Your task to perform on an android device: change keyboard looks Image 0: 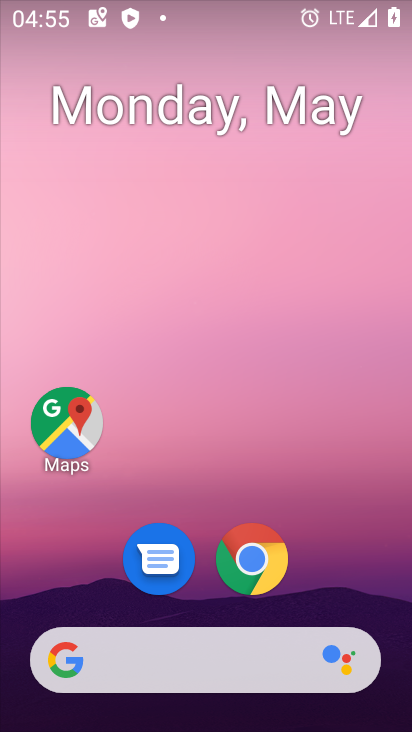
Step 0: drag from (333, 649) to (372, 41)
Your task to perform on an android device: change keyboard looks Image 1: 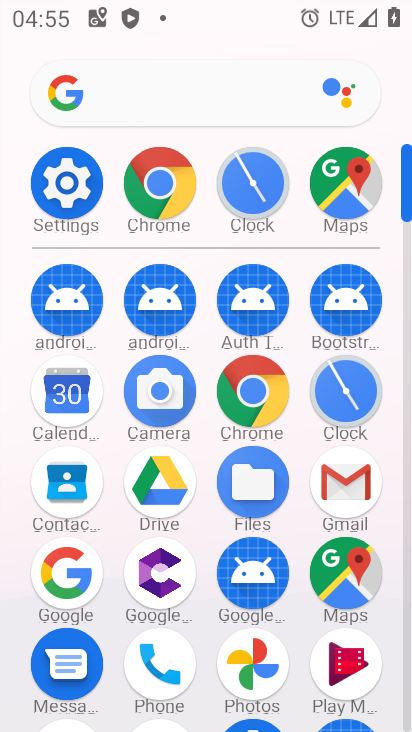
Step 1: click (75, 190)
Your task to perform on an android device: change keyboard looks Image 2: 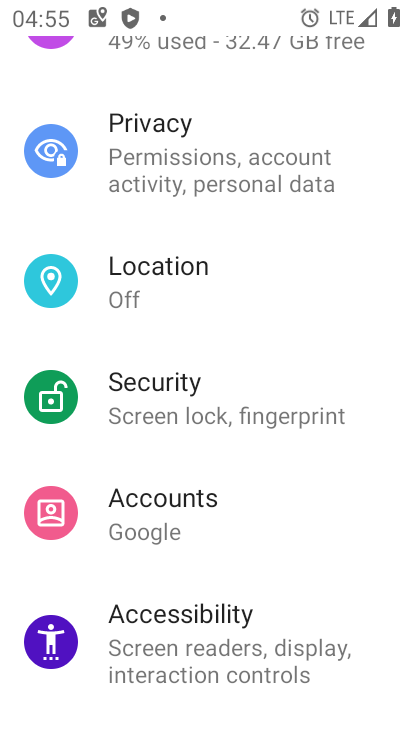
Step 2: drag from (359, 644) to (349, 57)
Your task to perform on an android device: change keyboard looks Image 3: 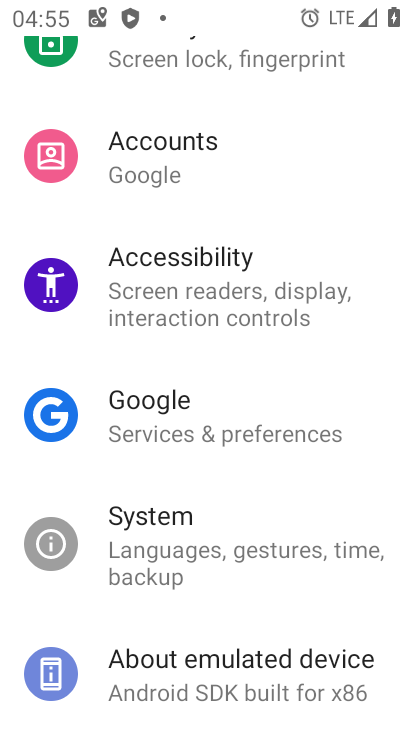
Step 3: click (229, 557)
Your task to perform on an android device: change keyboard looks Image 4: 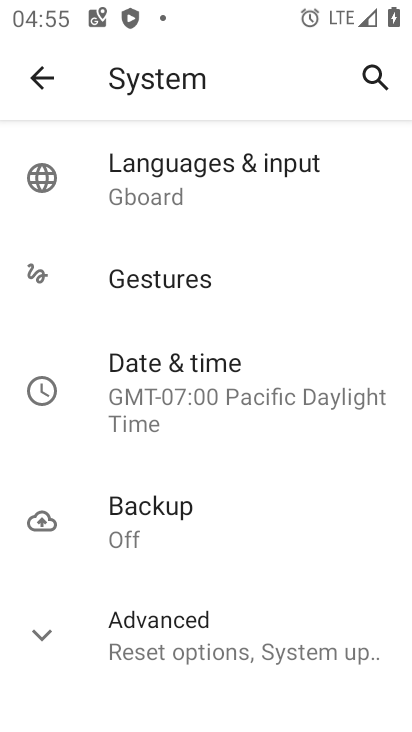
Step 4: click (252, 190)
Your task to perform on an android device: change keyboard looks Image 5: 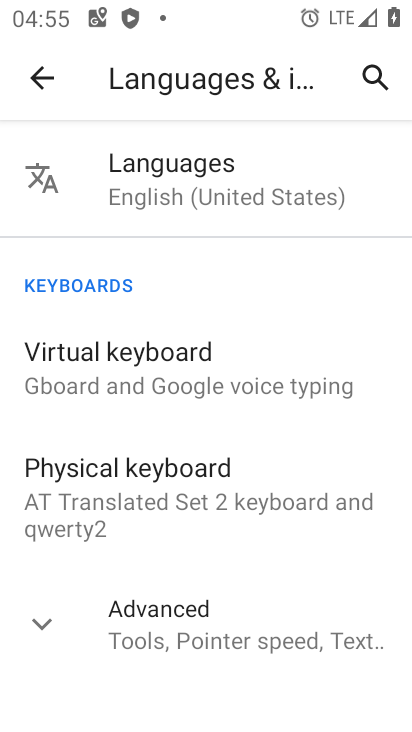
Step 5: click (173, 388)
Your task to perform on an android device: change keyboard looks Image 6: 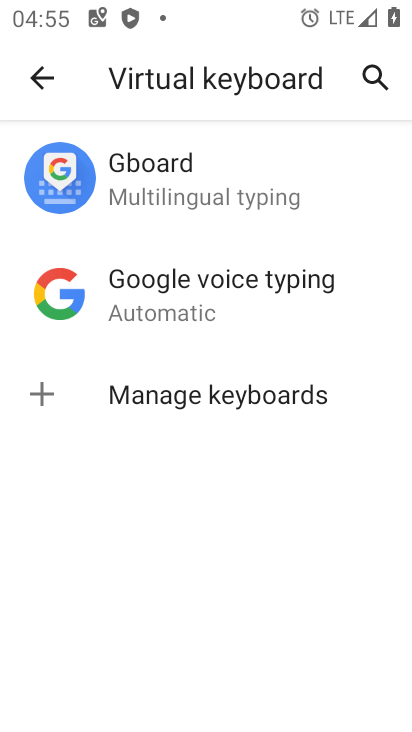
Step 6: click (154, 179)
Your task to perform on an android device: change keyboard looks Image 7: 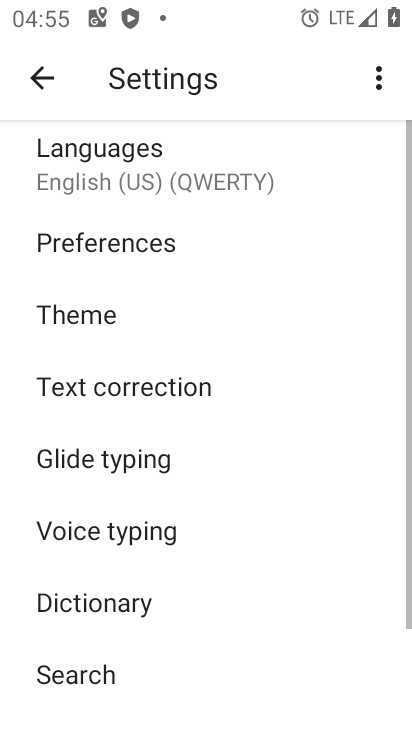
Step 7: click (150, 314)
Your task to perform on an android device: change keyboard looks Image 8: 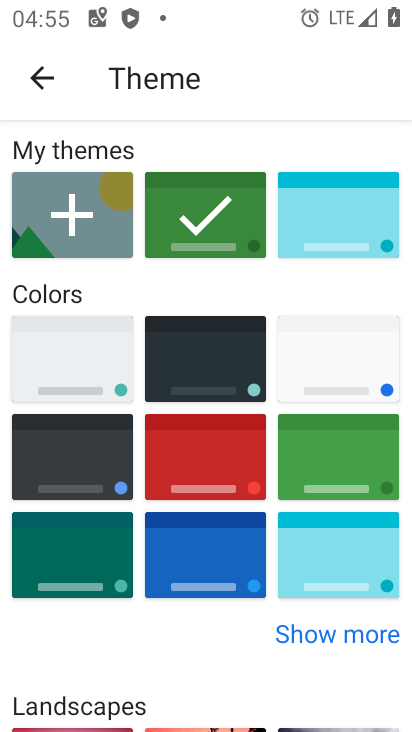
Step 8: click (231, 451)
Your task to perform on an android device: change keyboard looks Image 9: 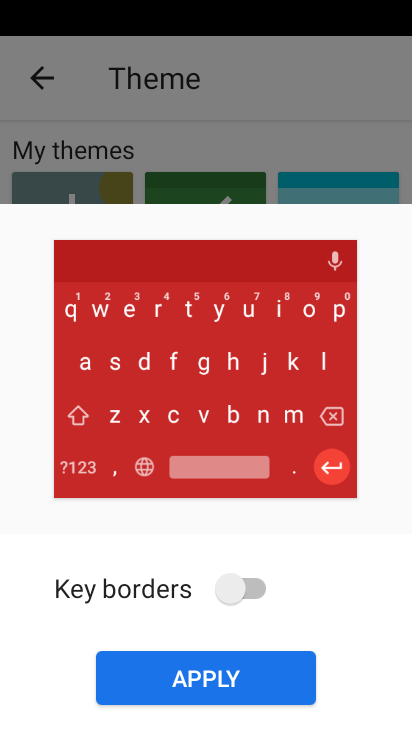
Step 9: click (261, 676)
Your task to perform on an android device: change keyboard looks Image 10: 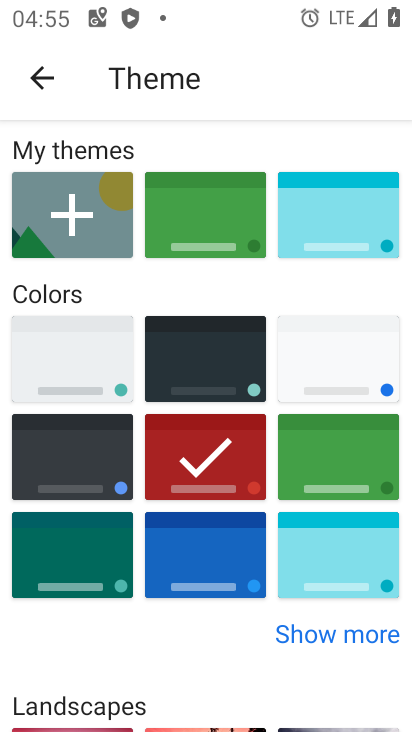
Step 10: click (190, 454)
Your task to perform on an android device: change keyboard looks Image 11: 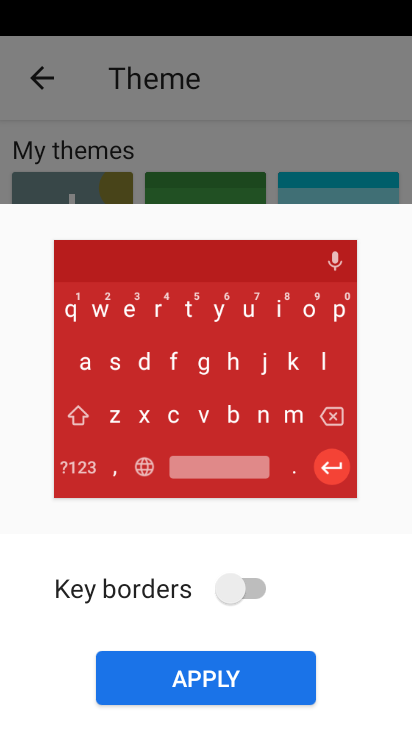
Step 11: click (214, 649)
Your task to perform on an android device: change keyboard looks Image 12: 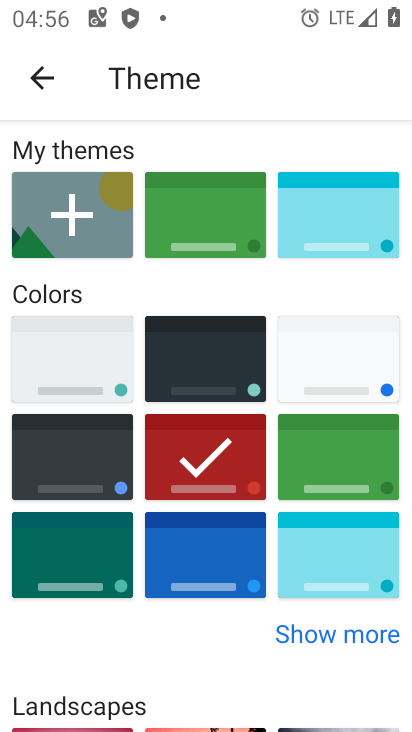
Step 12: task complete